Your task to perform on an android device: change timer sound Image 0: 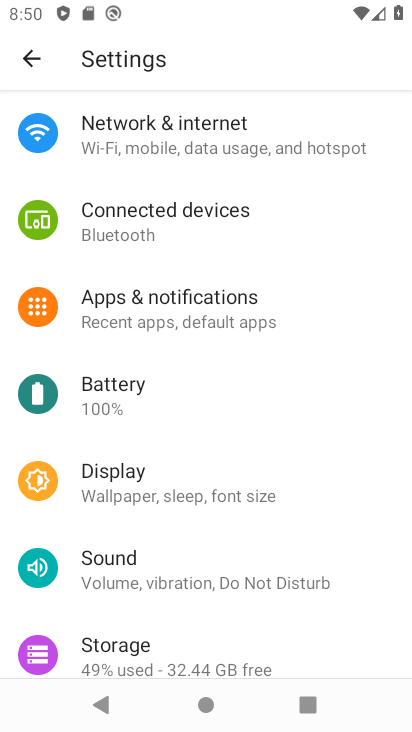
Step 0: press home button
Your task to perform on an android device: change timer sound Image 1: 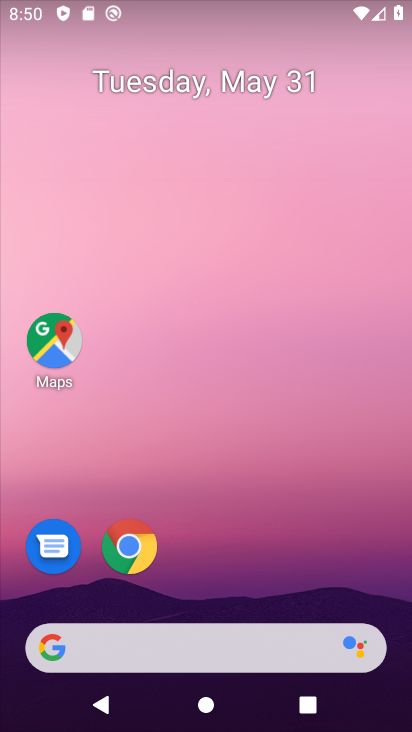
Step 1: drag from (399, 670) to (366, 66)
Your task to perform on an android device: change timer sound Image 2: 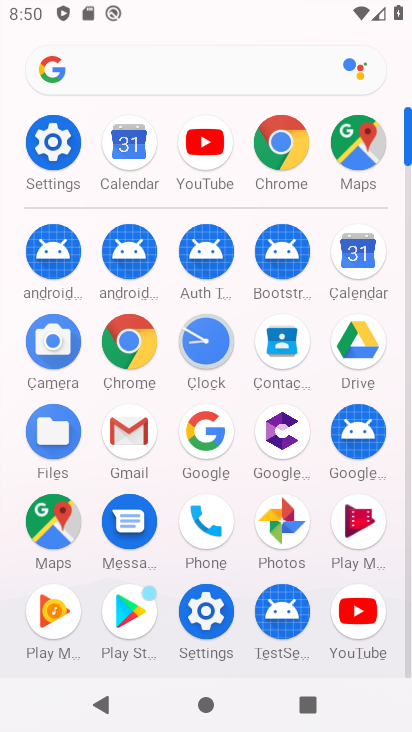
Step 2: click (201, 348)
Your task to perform on an android device: change timer sound Image 3: 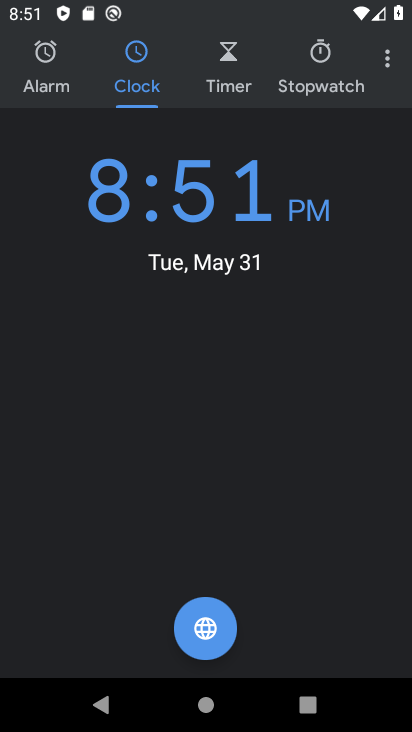
Step 3: click (388, 58)
Your task to perform on an android device: change timer sound Image 4: 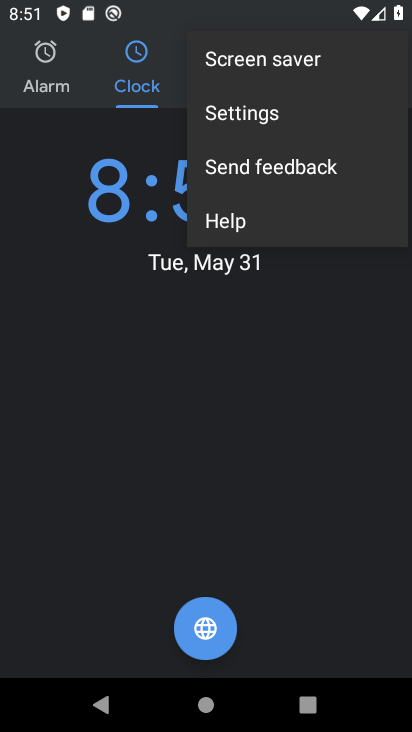
Step 4: click (229, 121)
Your task to perform on an android device: change timer sound Image 5: 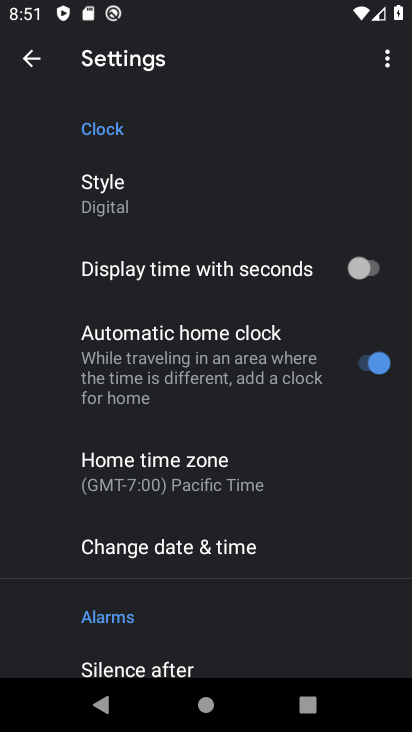
Step 5: drag from (253, 646) to (283, 177)
Your task to perform on an android device: change timer sound Image 6: 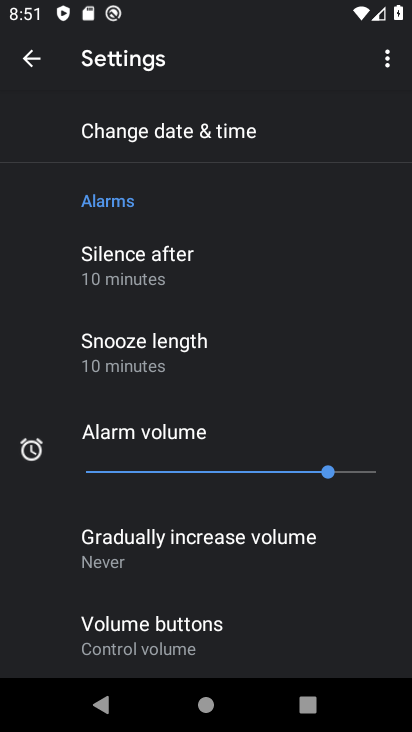
Step 6: drag from (284, 592) to (263, 198)
Your task to perform on an android device: change timer sound Image 7: 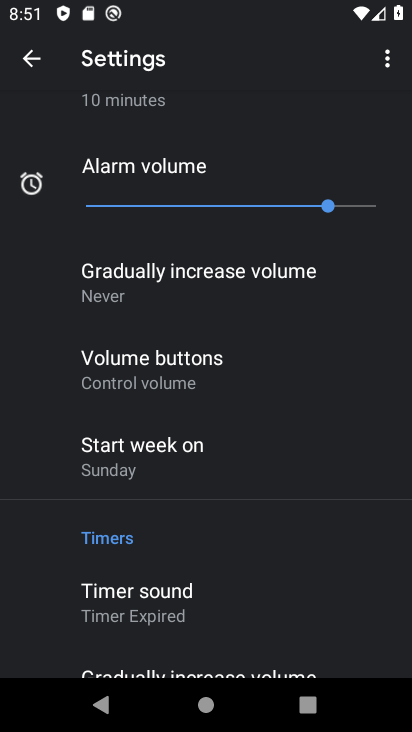
Step 7: drag from (237, 637) to (242, 302)
Your task to perform on an android device: change timer sound Image 8: 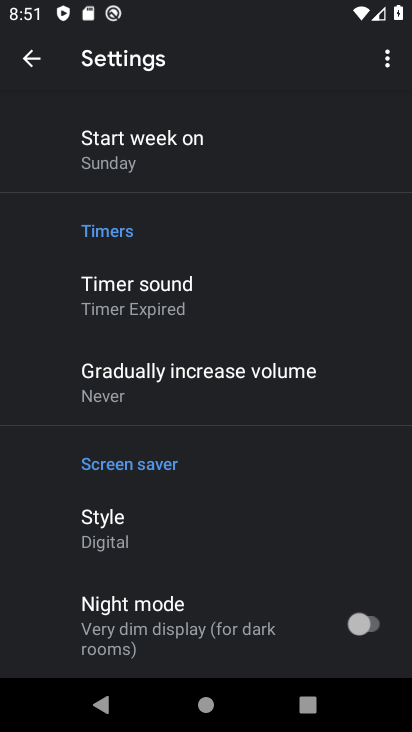
Step 8: click (112, 295)
Your task to perform on an android device: change timer sound Image 9: 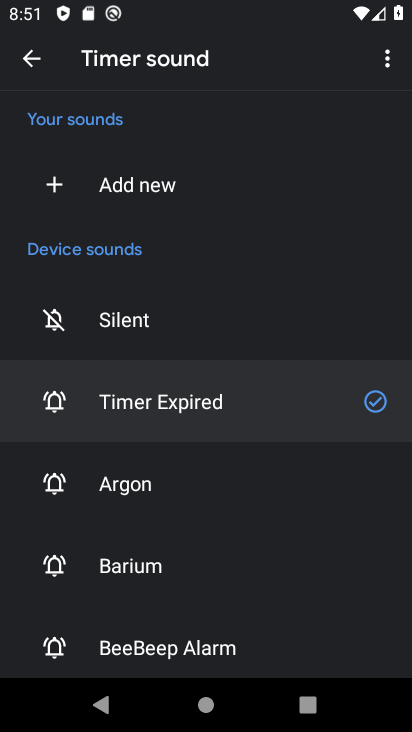
Step 9: click (117, 485)
Your task to perform on an android device: change timer sound Image 10: 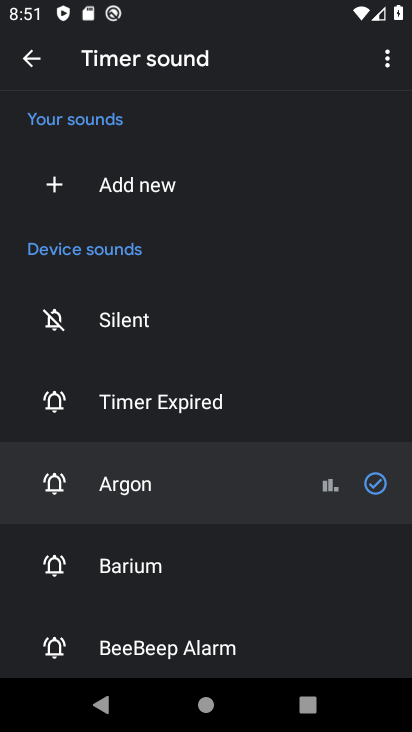
Step 10: task complete